Your task to perform on an android device: all mails in gmail Image 0: 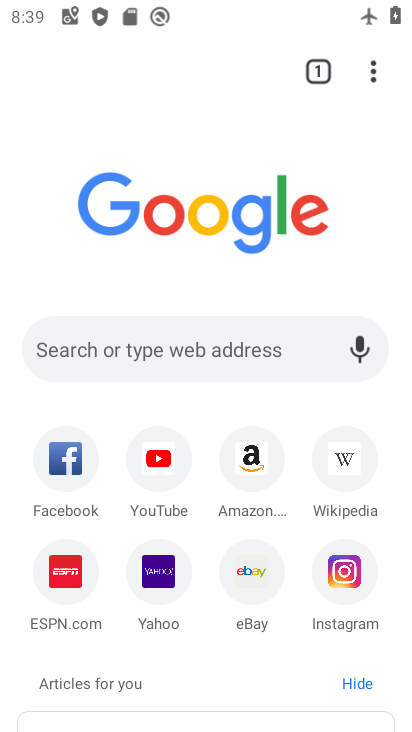
Step 0: press home button
Your task to perform on an android device: all mails in gmail Image 1: 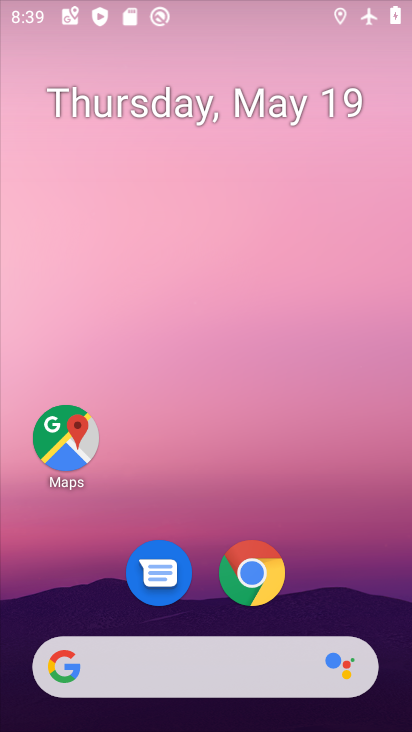
Step 1: drag from (389, 608) to (364, 4)
Your task to perform on an android device: all mails in gmail Image 2: 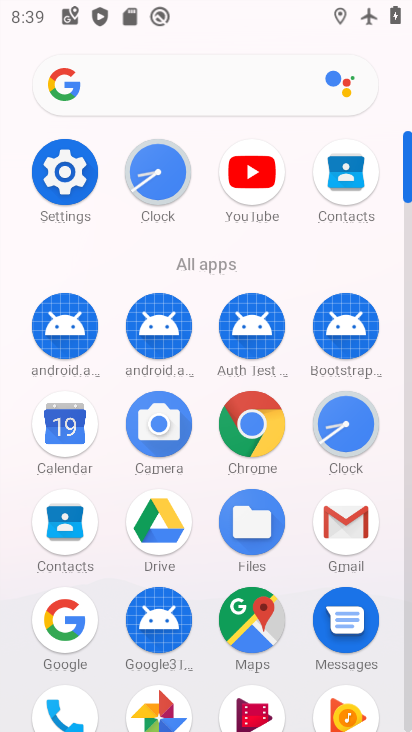
Step 2: click (357, 519)
Your task to perform on an android device: all mails in gmail Image 3: 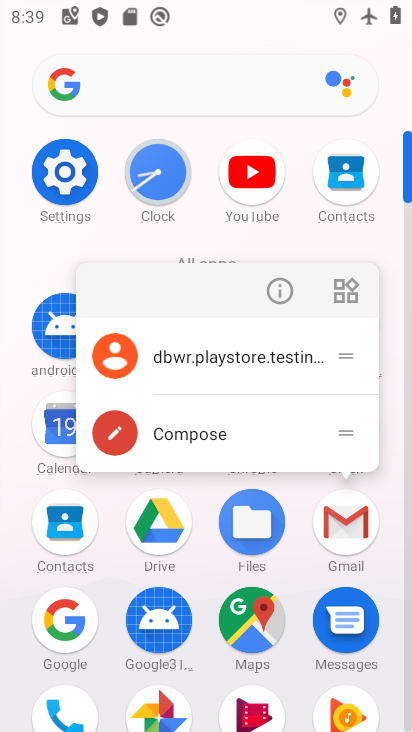
Step 3: click (345, 525)
Your task to perform on an android device: all mails in gmail Image 4: 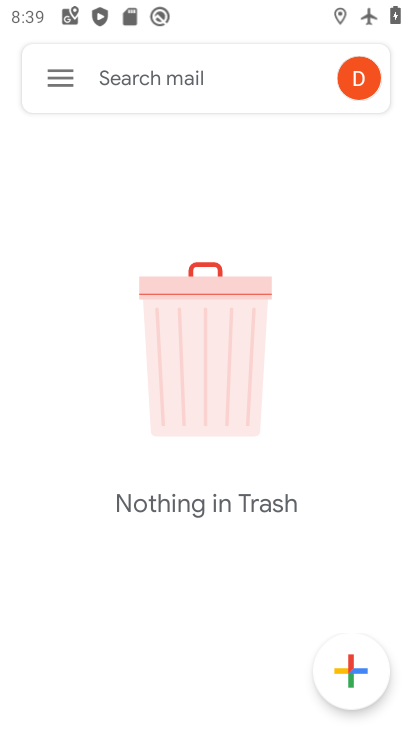
Step 4: click (63, 80)
Your task to perform on an android device: all mails in gmail Image 5: 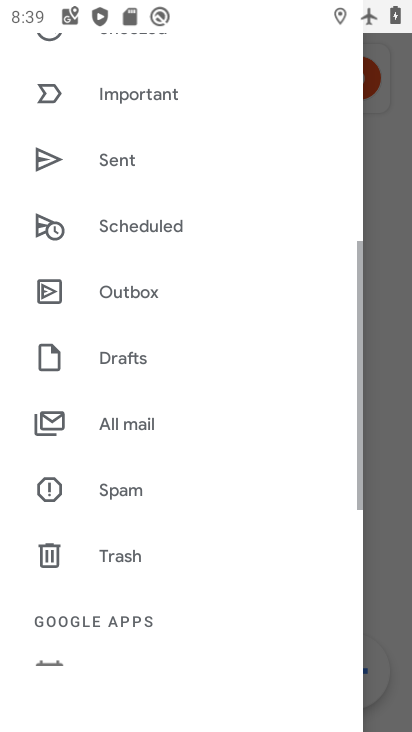
Step 5: click (147, 418)
Your task to perform on an android device: all mails in gmail Image 6: 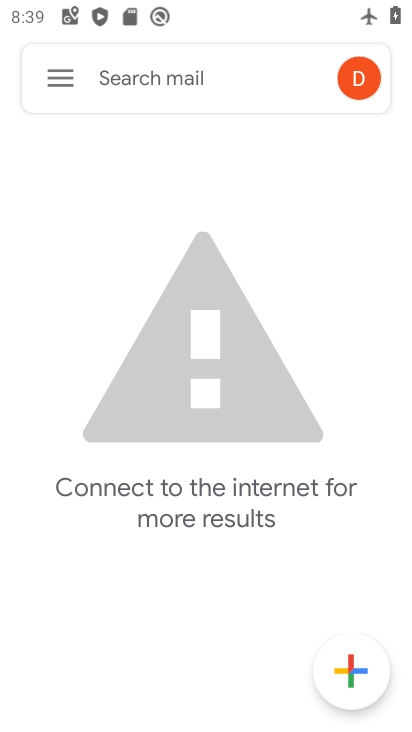
Step 6: task complete